Your task to perform on an android device: Go to internet settings Image 0: 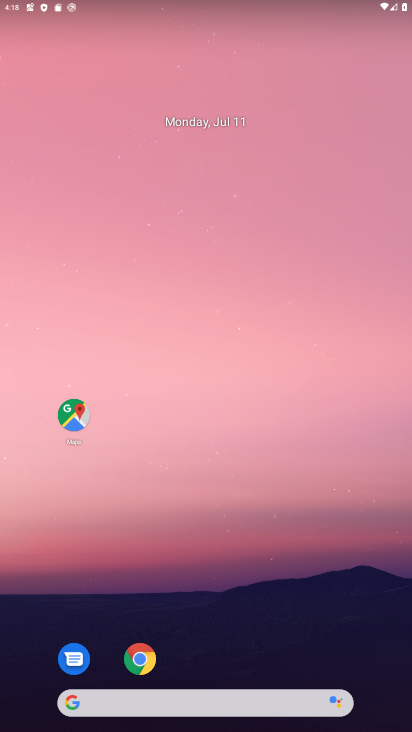
Step 0: drag from (211, 618) to (162, 28)
Your task to perform on an android device: Go to internet settings Image 1: 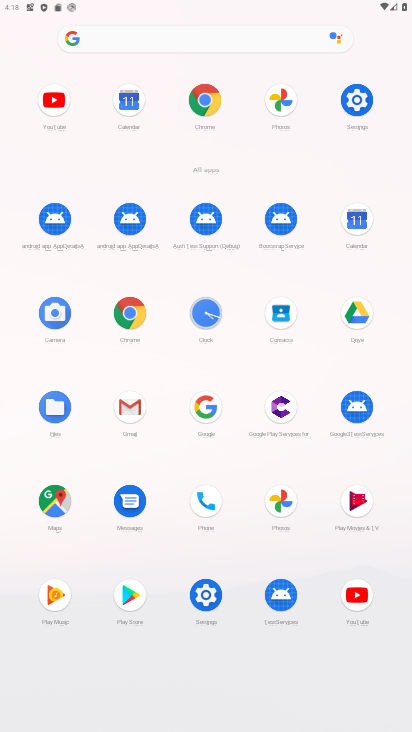
Step 1: click (353, 102)
Your task to perform on an android device: Go to internet settings Image 2: 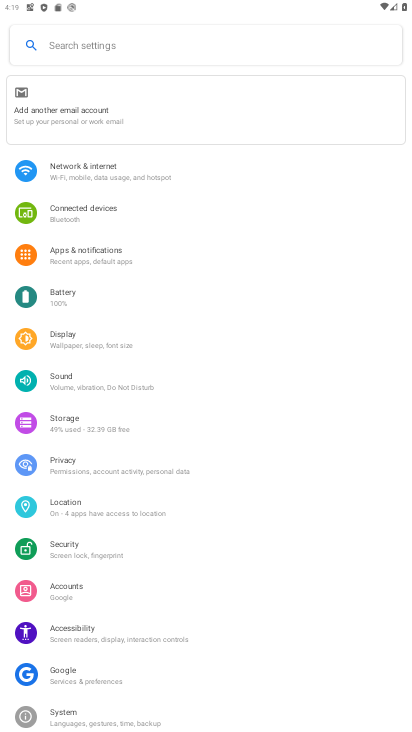
Step 2: click (94, 179)
Your task to perform on an android device: Go to internet settings Image 3: 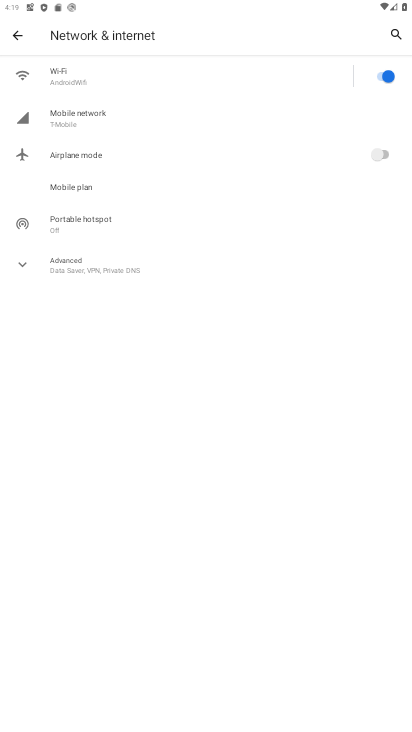
Step 3: task complete